Your task to perform on an android device: turn on notifications settings in the gmail app Image 0: 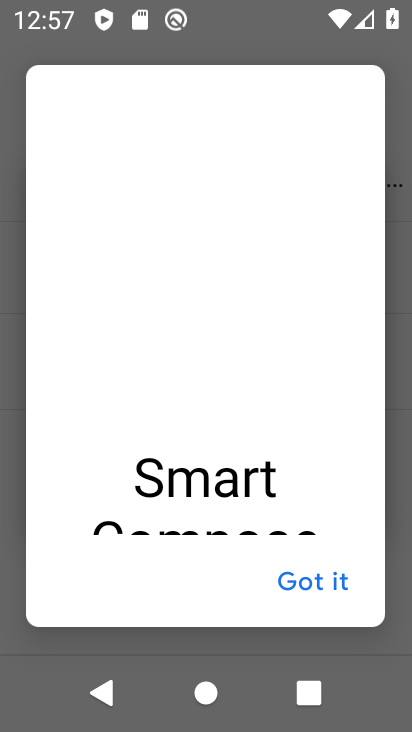
Step 0: press home button
Your task to perform on an android device: turn on notifications settings in the gmail app Image 1: 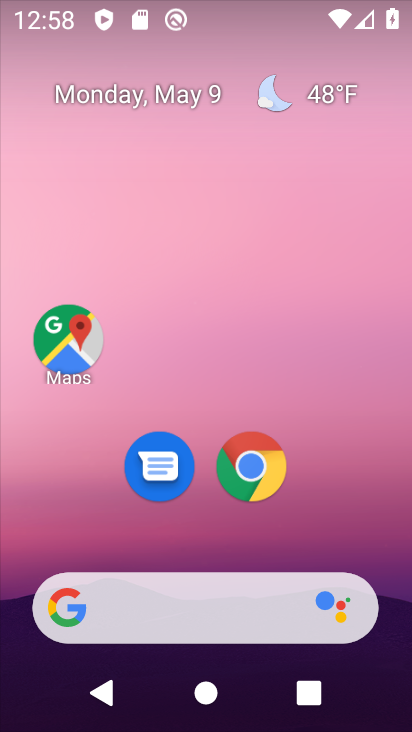
Step 1: drag from (196, 530) to (197, 198)
Your task to perform on an android device: turn on notifications settings in the gmail app Image 2: 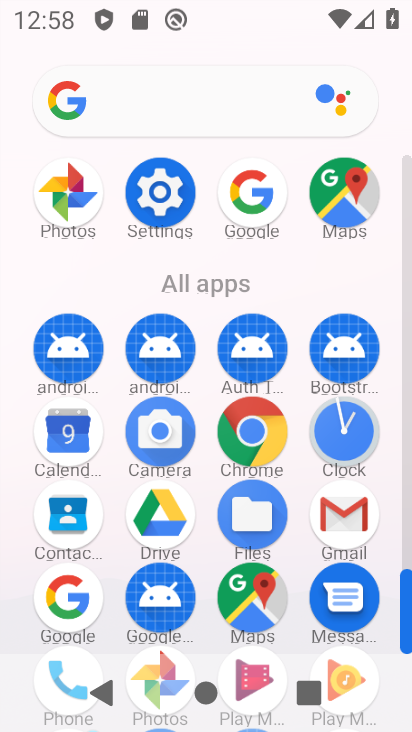
Step 2: click (322, 501)
Your task to perform on an android device: turn on notifications settings in the gmail app Image 3: 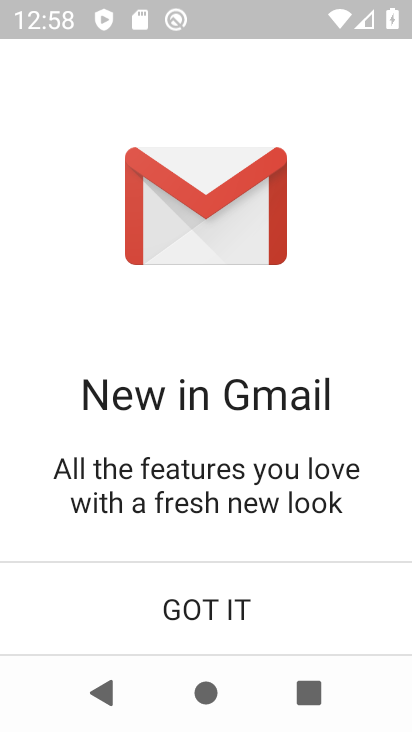
Step 3: click (208, 617)
Your task to perform on an android device: turn on notifications settings in the gmail app Image 4: 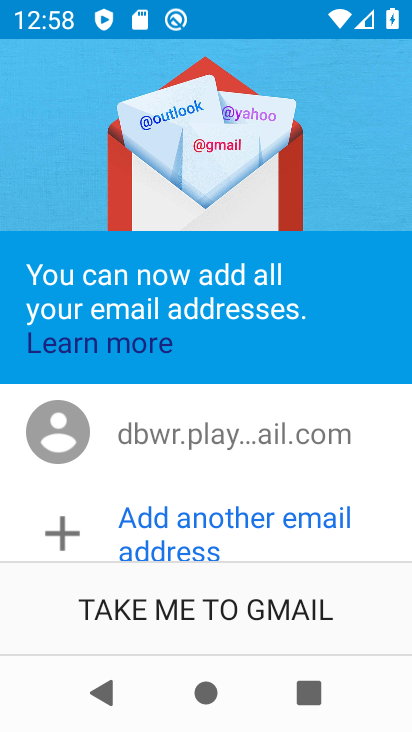
Step 4: click (239, 587)
Your task to perform on an android device: turn on notifications settings in the gmail app Image 5: 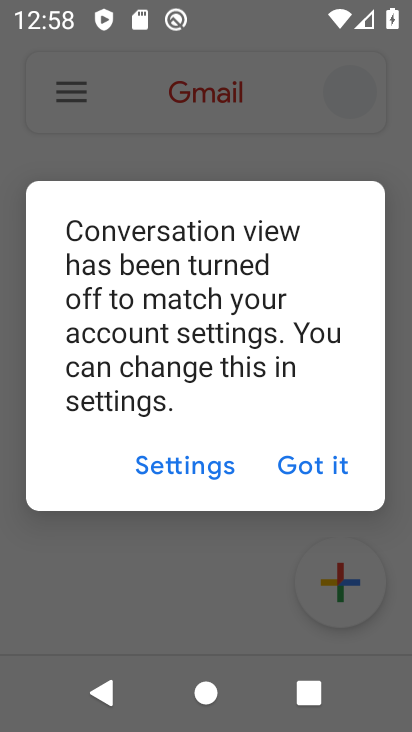
Step 5: click (297, 467)
Your task to perform on an android device: turn on notifications settings in the gmail app Image 6: 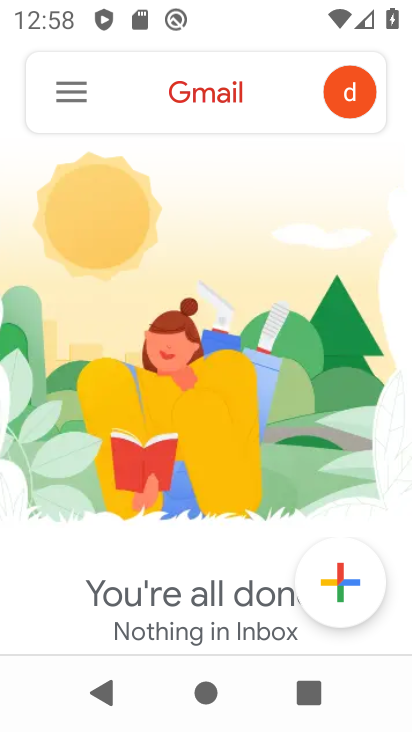
Step 6: click (78, 81)
Your task to perform on an android device: turn on notifications settings in the gmail app Image 7: 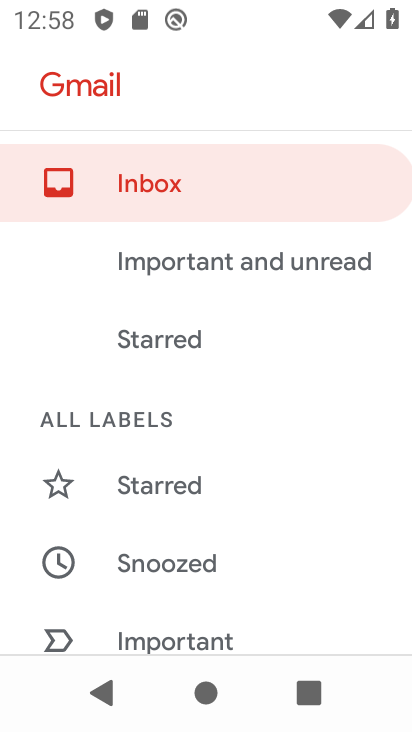
Step 7: drag from (249, 537) to (251, 177)
Your task to perform on an android device: turn on notifications settings in the gmail app Image 8: 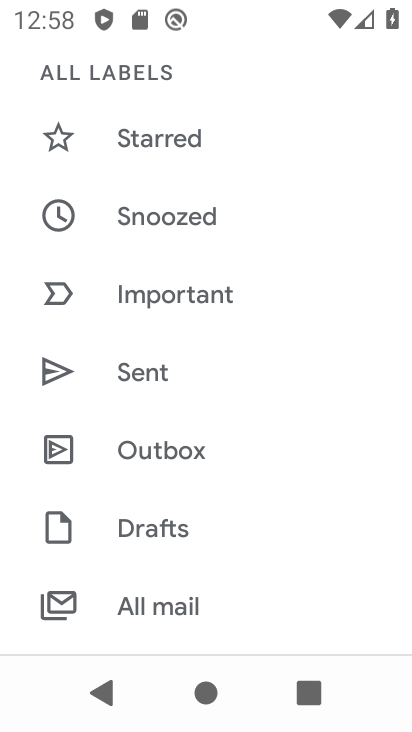
Step 8: drag from (269, 537) to (258, 303)
Your task to perform on an android device: turn on notifications settings in the gmail app Image 9: 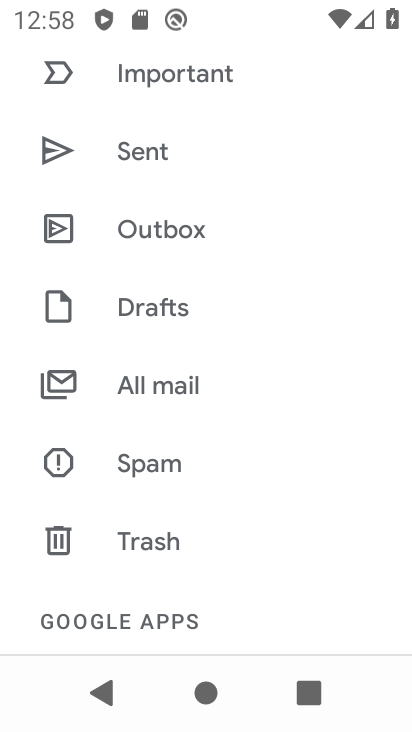
Step 9: drag from (224, 562) to (248, 306)
Your task to perform on an android device: turn on notifications settings in the gmail app Image 10: 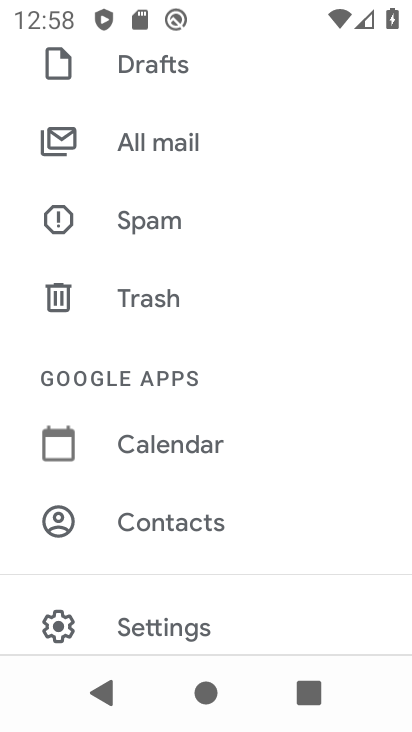
Step 10: click (184, 600)
Your task to perform on an android device: turn on notifications settings in the gmail app Image 11: 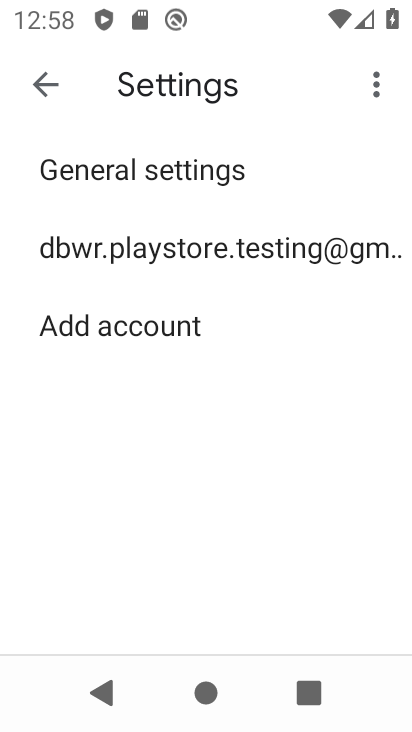
Step 11: drag from (227, 565) to (231, 398)
Your task to perform on an android device: turn on notifications settings in the gmail app Image 12: 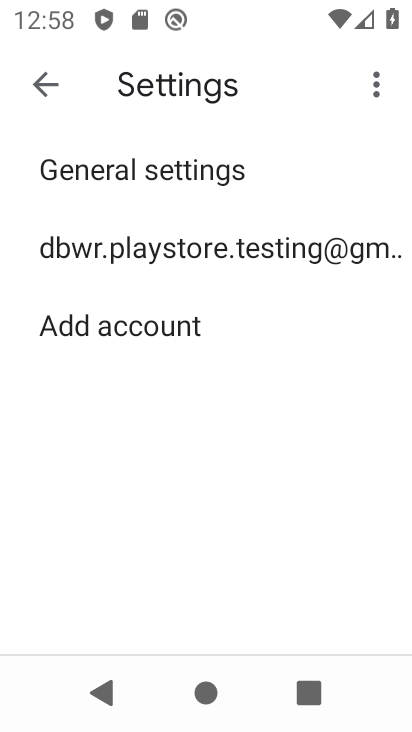
Step 12: click (242, 247)
Your task to perform on an android device: turn on notifications settings in the gmail app Image 13: 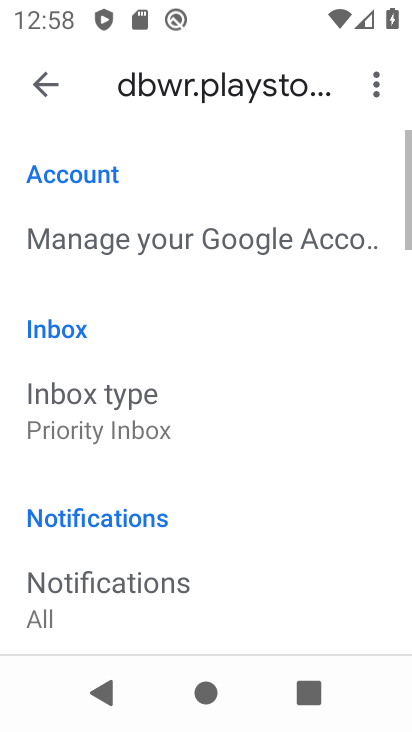
Step 13: drag from (210, 580) to (203, 375)
Your task to perform on an android device: turn on notifications settings in the gmail app Image 14: 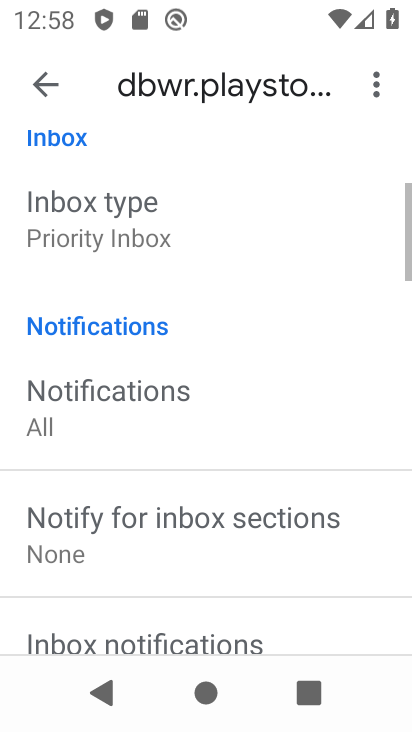
Step 14: drag from (177, 532) to (197, 307)
Your task to perform on an android device: turn on notifications settings in the gmail app Image 15: 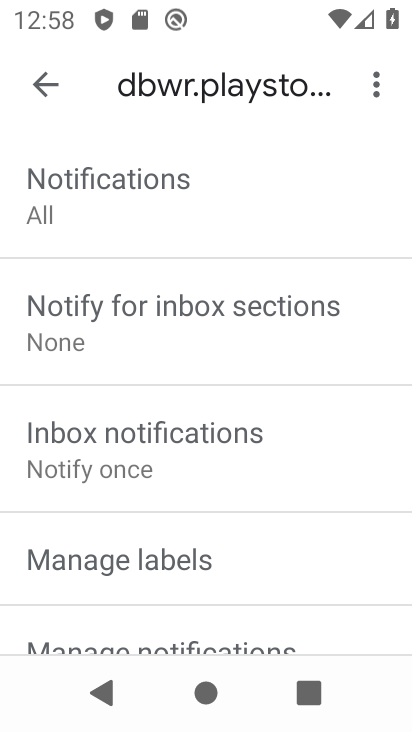
Step 15: drag from (166, 570) to (184, 387)
Your task to perform on an android device: turn on notifications settings in the gmail app Image 16: 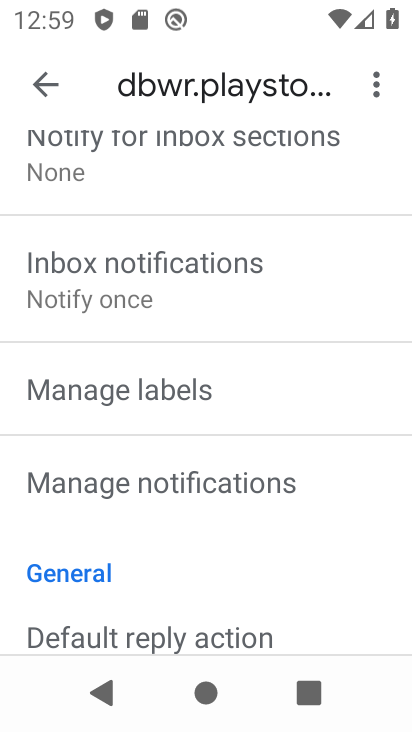
Step 16: drag from (190, 602) to (209, 380)
Your task to perform on an android device: turn on notifications settings in the gmail app Image 17: 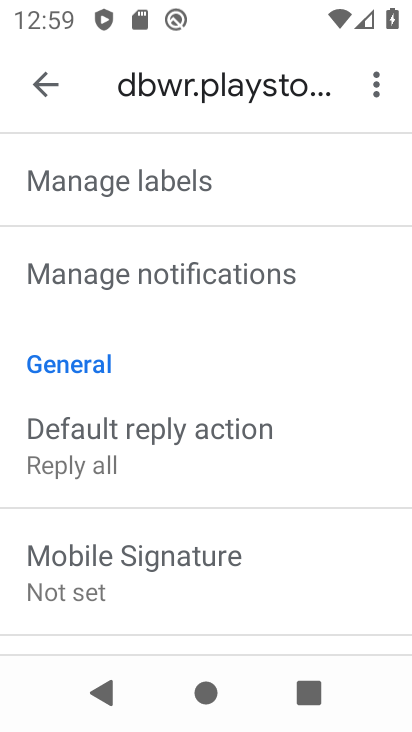
Step 17: click (201, 294)
Your task to perform on an android device: turn on notifications settings in the gmail app Image 18: 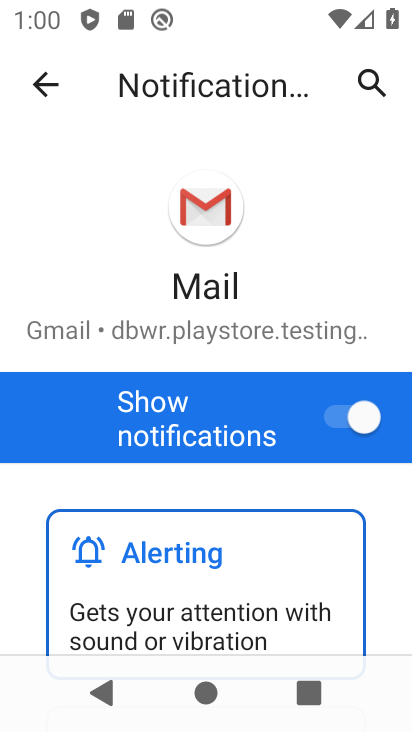
Step 18: task complete